Your task to perform on an android device: Clear all items from cart on ebay. Add "razer thresher" to the cart on ebay, then select checkout. Image 0: 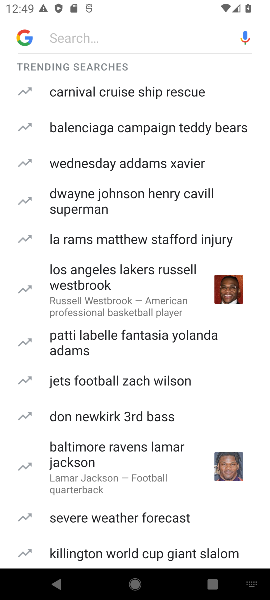
Step 0: type "ebay.com"
Your task to perform on an android device: Clear all items from cart on ebay. Add "razer thresher" to the cart on ebay, then select checkout. Image 1: 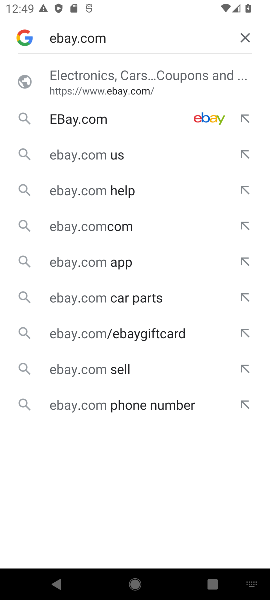
Step 1: click (148, 94)
Your task to perform on an android device: Clear all items from cart on ebay. Add "razer thresher" to the cart on ebay, then select checkout. Image 2: 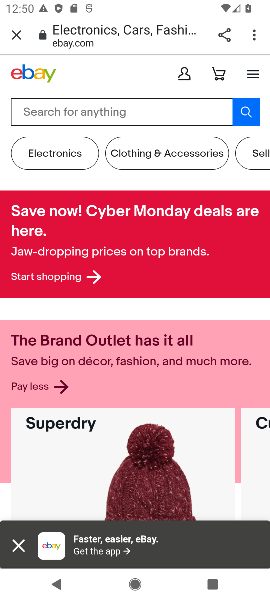
Step 2: task complete